Your task to perform on an android device: Open Chrome and go to the settings page Image 0: 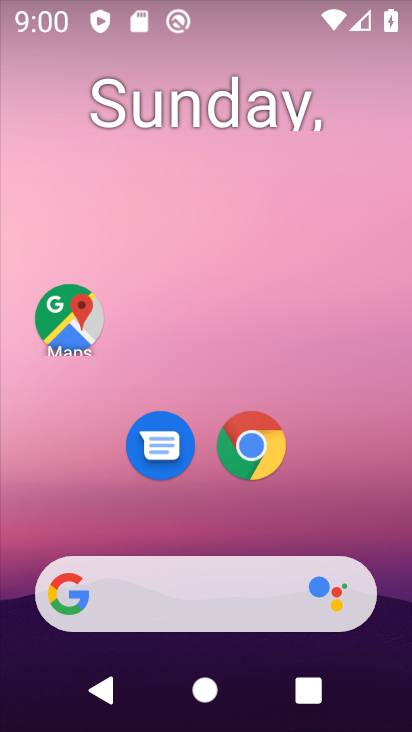
Step 0: drag from (333, 511) to (294, 11)
Your task to perform on an android device: Open Chrome and go to the settings page Image 1: 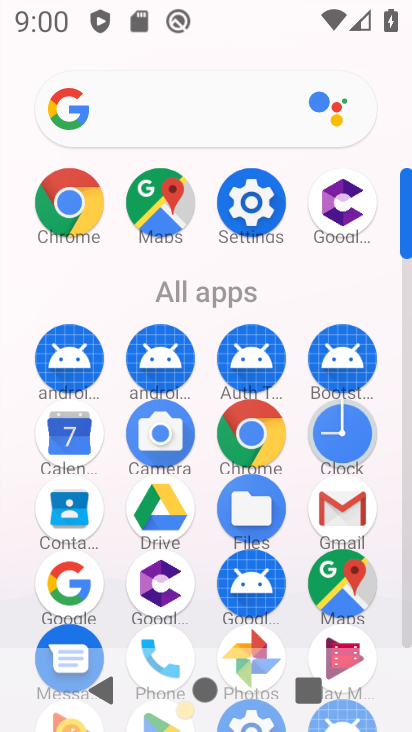
Step 1: click (68, 198)
Your task to perform on an android device: Open Chrome and go to the settings page Image 2: 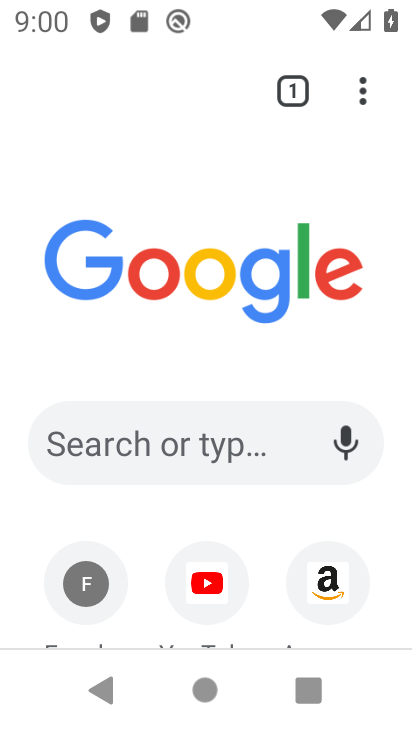
Step 2: click (364, 90)
Your task to perform on an android device: Open Chrome and go to the settings page Image 3: 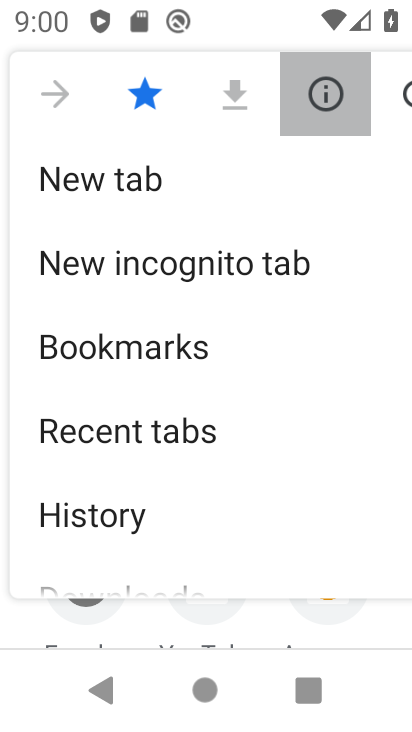
Step 3: drag from (364, 90) to (409, 284)
Your task to perform on an android device: Open Chrome and go to the settings page Image 4: 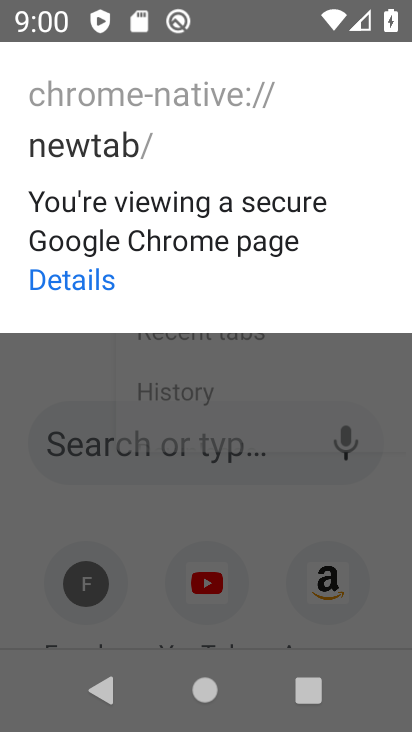
Step 4: click (359, 357)
Your task to perform on an android device: Open Chrome and go to the settings page Image 5: 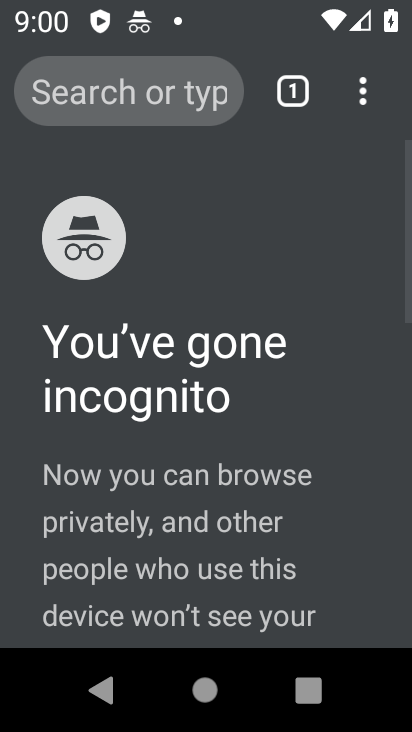
Step 5: task complete